Your task to perform on an android device: Open internet settings Image 0: 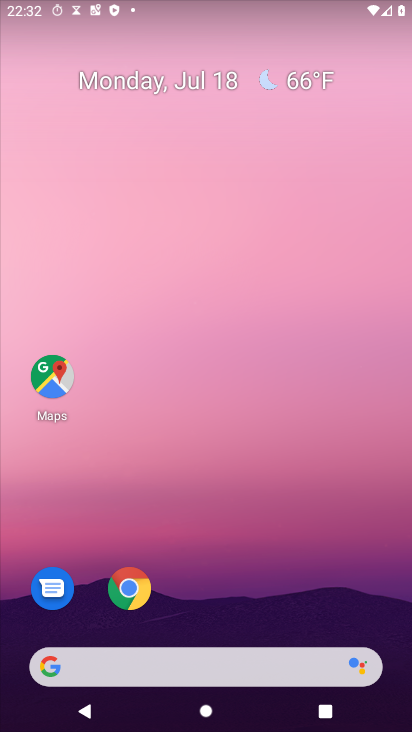
Step 0: press home button
Your task to perform on an android device: Open internet settings Image 1: 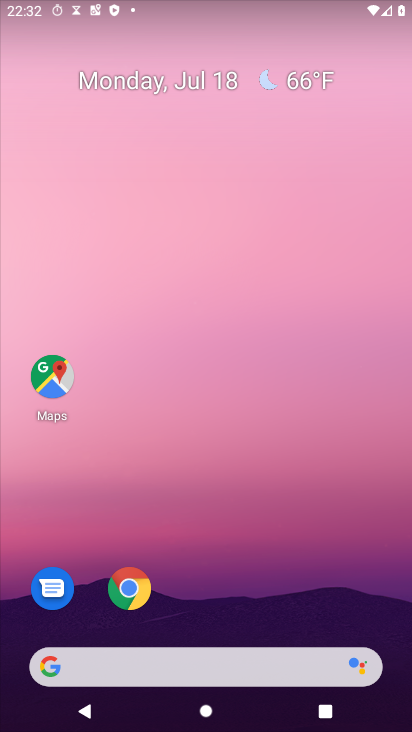
Step 1: drag from (219, 676) to (367, 49)
Your task to perform on an android device: Open internet settings Image 2: 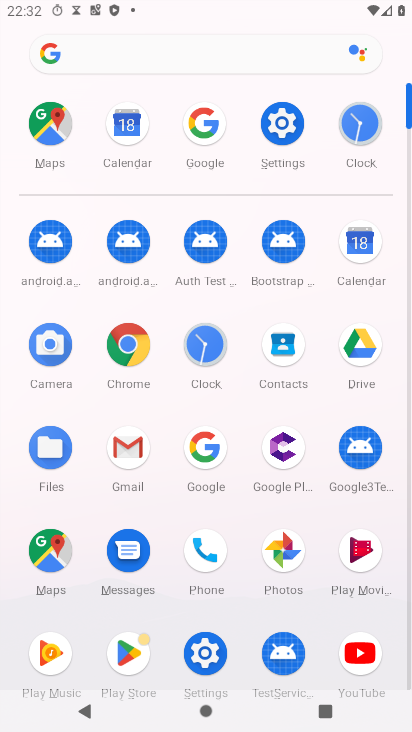
Step 2: click (275, 118)
Your task to perform on an android device: Open internet settings Image 3: 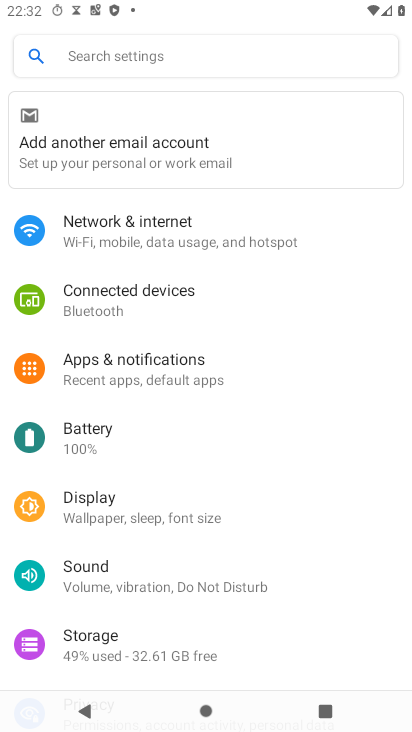
Step 3: click (172, 223)
Your task to perform on an android device: Open internet settings Image 4: 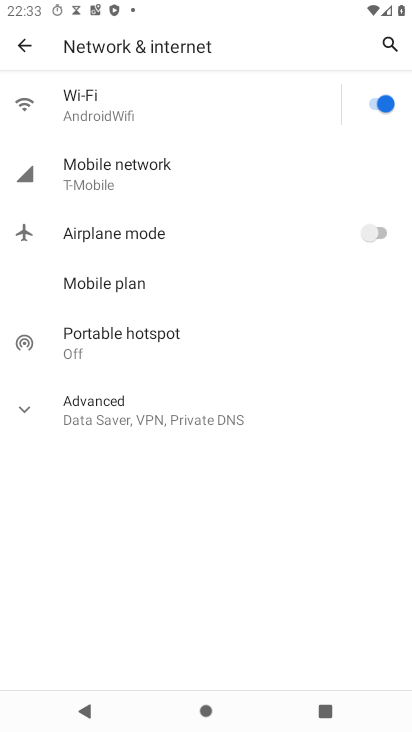
Step 4: task complete